Your task to perform on an android device: choose inbox layout in the gmail app Image 0: 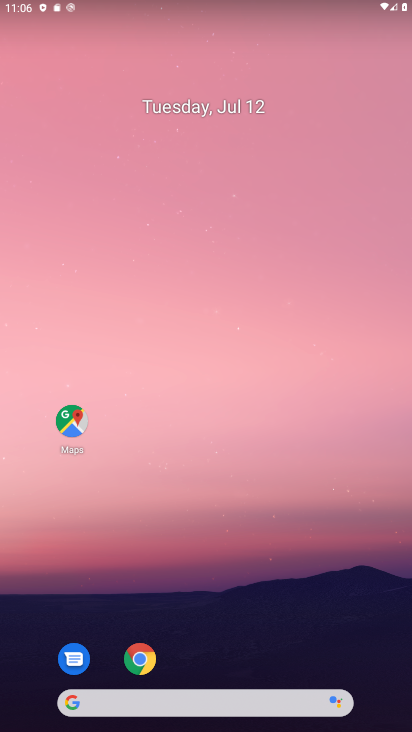
Step 0: click (68, 422)
Your task to perform on an android device: choose inbox layout in the gmail app Image 1: 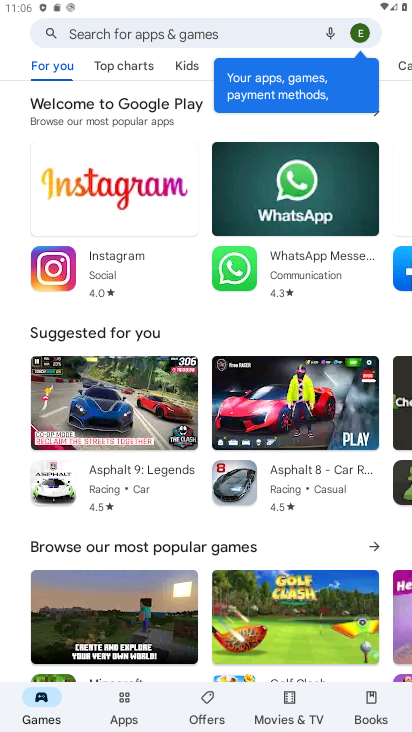
Step 1: press home button
Your task to perform on an android device: choose inbox layout in the gmail app Image 2: 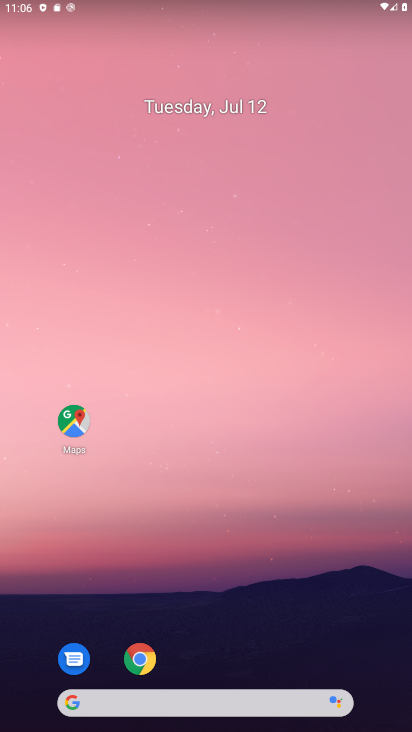
Step 2: drag from (37, 710) to (146, 168)
Your task to perform on an android device: choose inbox layout in the gmail app Image 3: 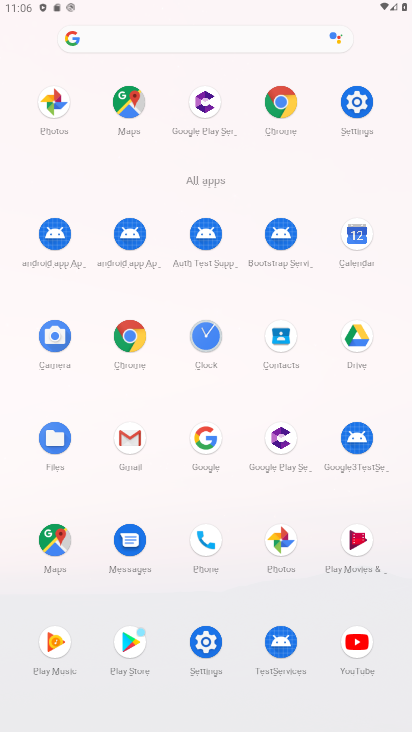
Step 3: click (133, 444)
Your task to perform on an android device: choose inbox layout in the gmail app Image 4: 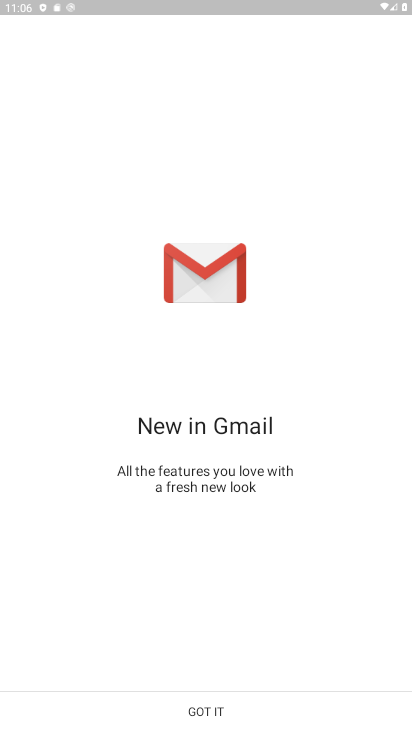
Step 4: click (194, 724)
Your task to perform on an android device: choose inbox layout in the gmail app Image 5: 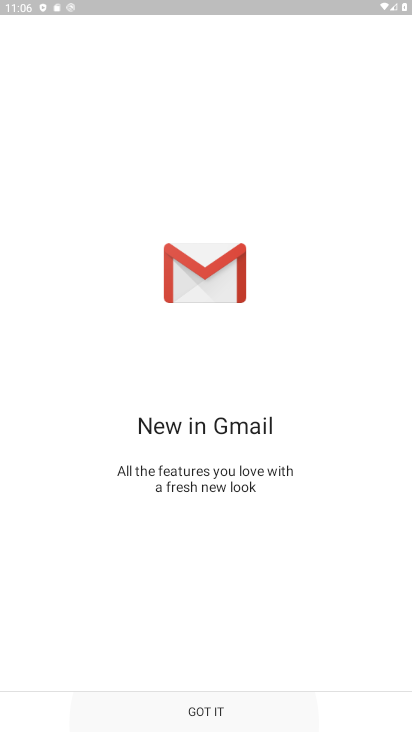
Step 5: click (199, 705)
Your task to perform on an android device: choose inbox layout in the gmail app Image 6: 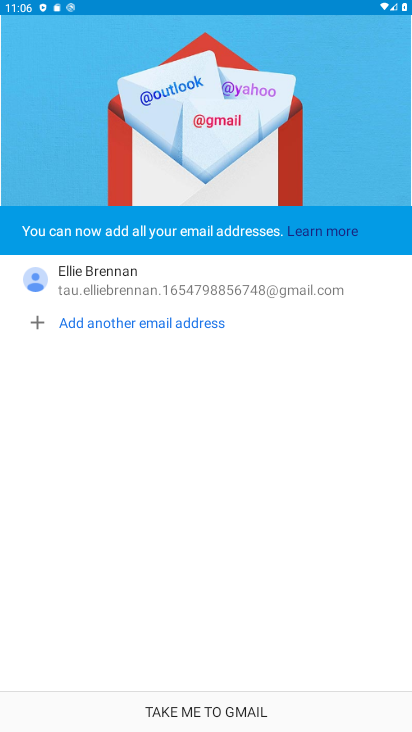
Step 6: click (196, 706)
Your task to perform on an android device: choose inbox layout in the gmail app Image 7: 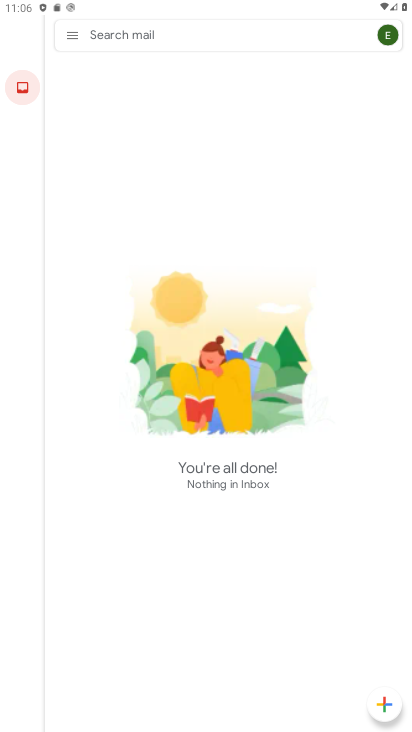
Step 7: click (76, 32)
Your task to perform on an android device: choose inbox layout in the gmail app Image 8: 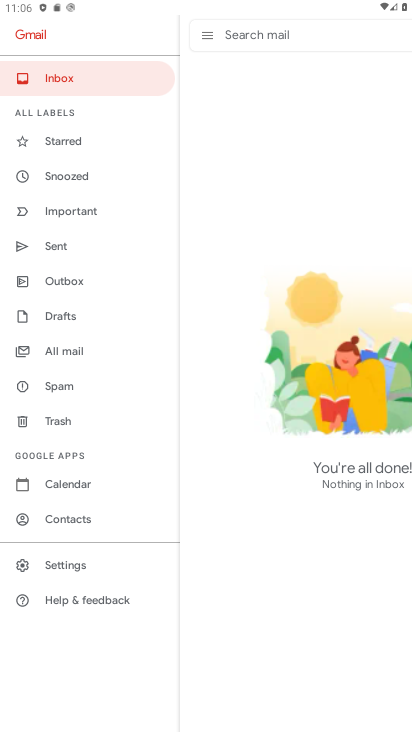
Step 8: click (93, 75)
Your task to perform on an android device: choose inbox layout in the gmail app Image 9: 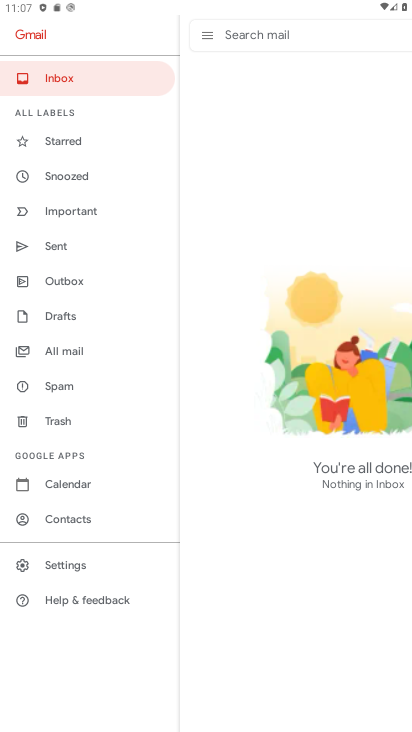
Step 9: click (117, 74)
Your task to perform on an android device: choose inbox layout in the gmail app Image 10: 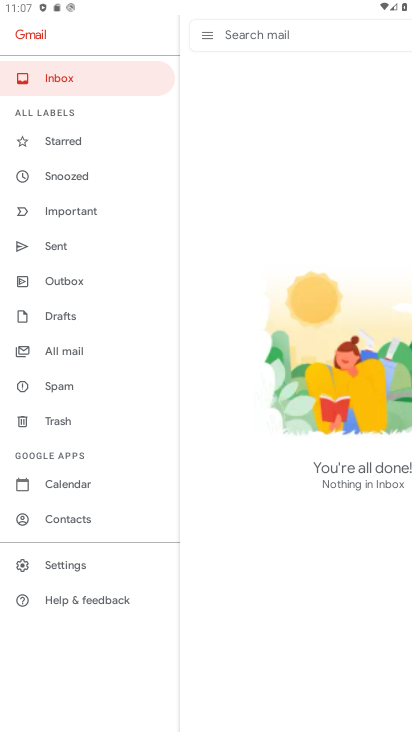
Step 10: click (75, 71)
Your task to perform on an android device: choose inbox layout in the gmail app Image 11: 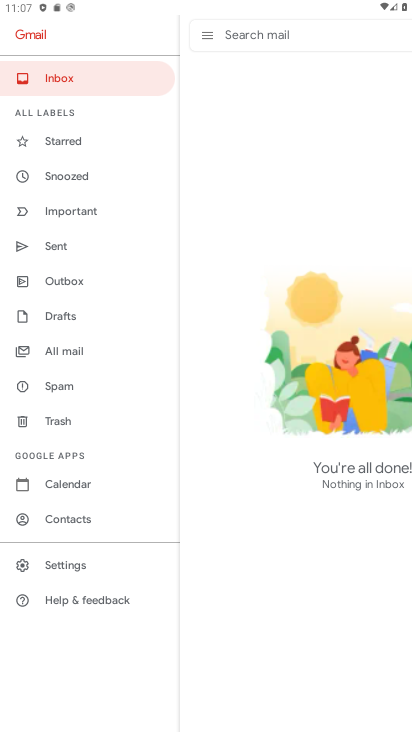
Step 11: click (78, 81)
Your task to perform on an android device: choose inbox layout in the gmail app Image 12: 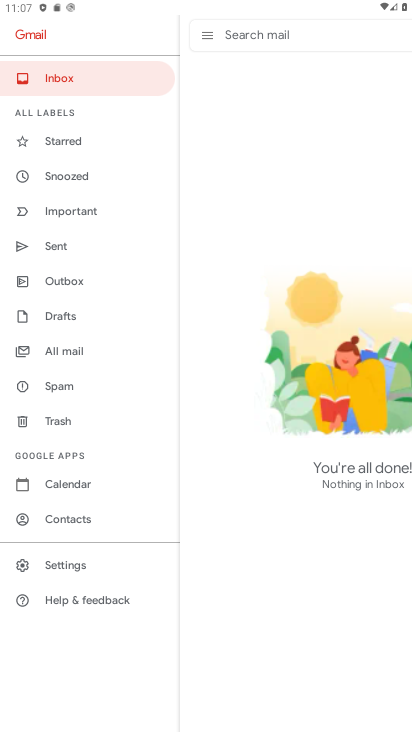
Step 12: task complete